Your task to perform on an android device: Open battery settings Image 0: 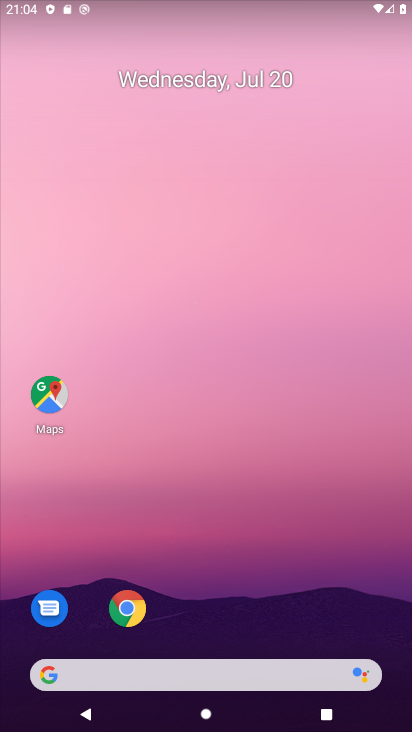
Step 0: drag from (239, 681) to (208, 80)
Your task to perform on an android device: Open battery settings Image 1: 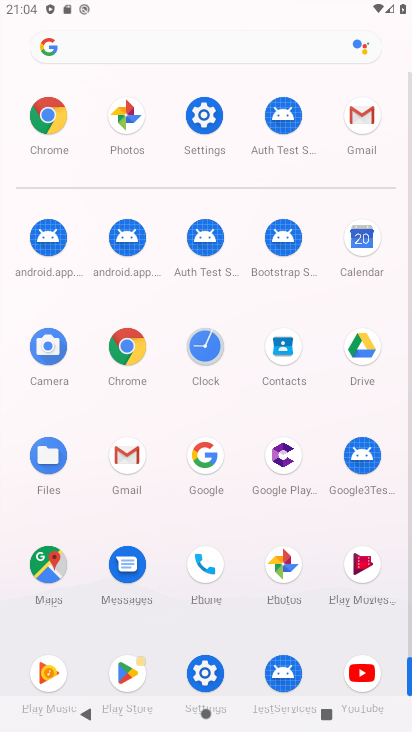
Step 1: click (193, 105)
Your task to perform on an android device: Open battery settings Image 2: 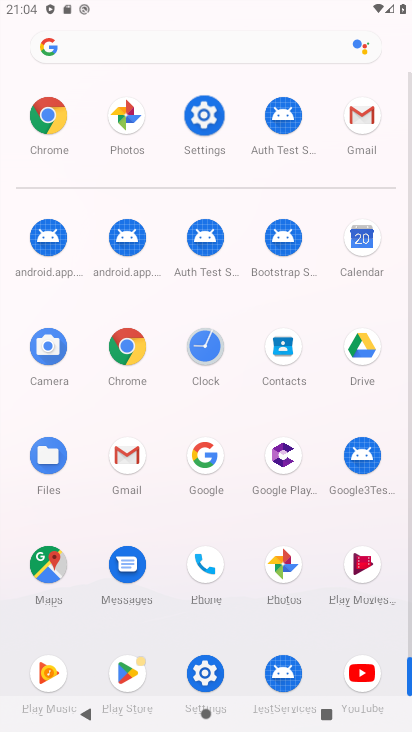
Step 2: click (208, 115)
Your task to perform on an android device: Open battery settings Image 3: 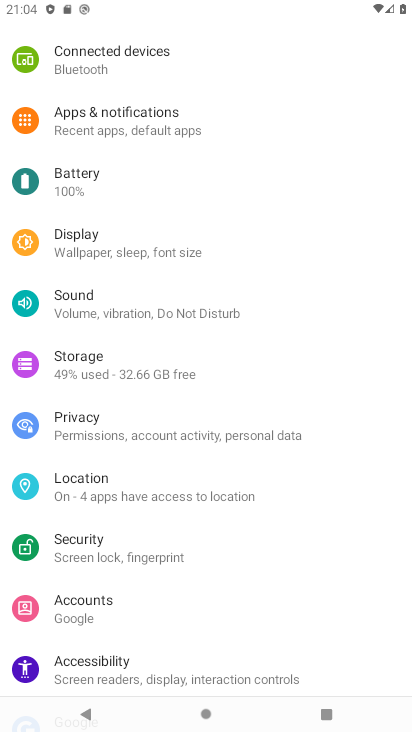
Step 3: click (75, 192)
Your task to perform on an android device: Open battery settings Image 4: 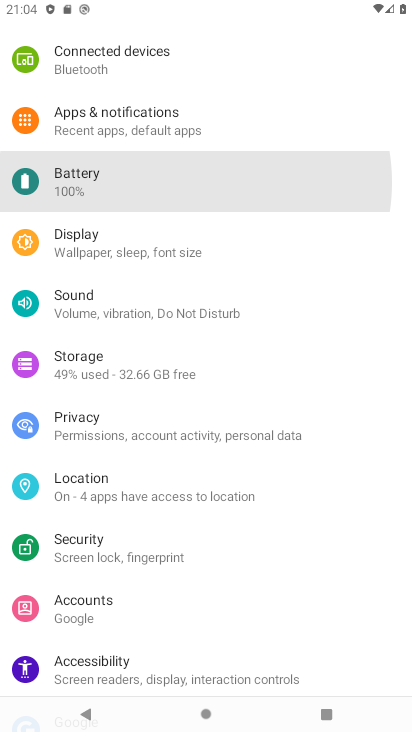
Step 4: click (75, 193)
Your task to perform on an android device: Open battery settings Image 5: 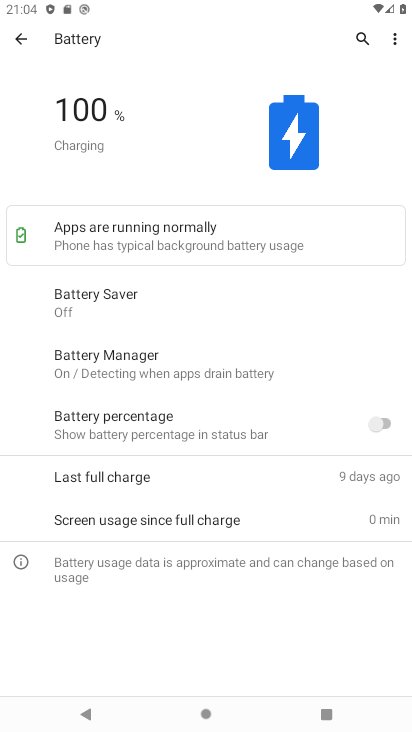
Step 5: task complete